Your task to perform on an android device: turn off data saver in the chrome app Image 0: 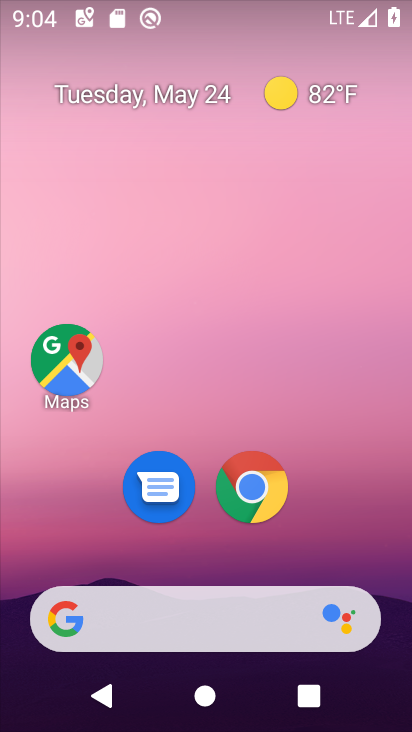
Step 0: drag from (365, 532) to (370, 34)
Your task to perform on an android device: turn off data saver in the chrome app Image 1: 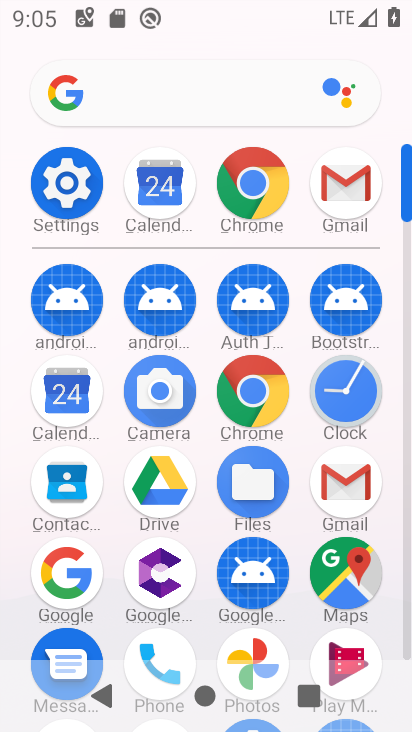
Step 1: click (223, 384)
Your task to perform on an android device: turn off data saver in the chrome app Image 2: 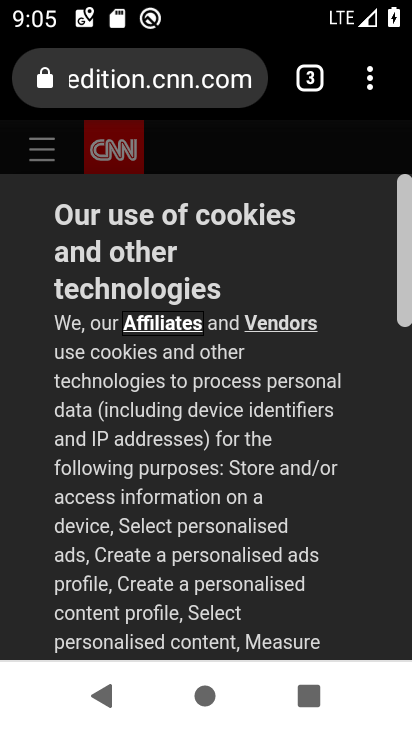
Step 2: click (379, 84)
Your task to perform on an android device: turn off data saver in the chrome app Image 3: 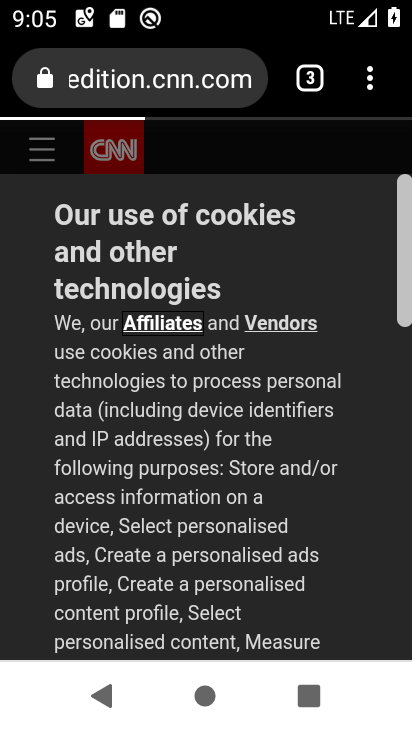
Step 3: drag from (364, 86) to (132, 546)
Your task to perform on an android device: turn off data saver in the chrome app Image 4: 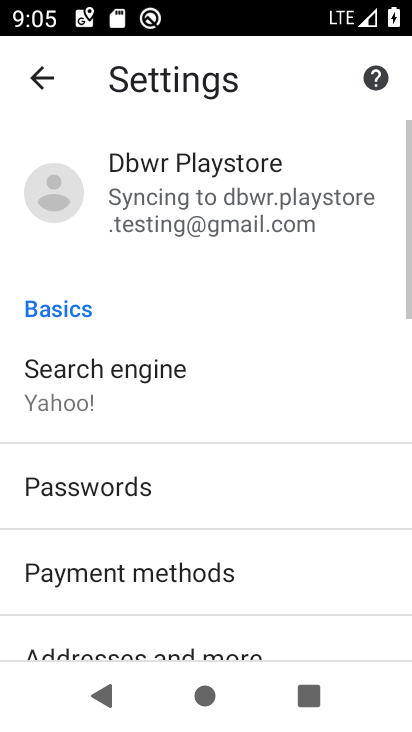
Step 4: drag from (266, 636) to (322, 300)
Your task to perform on an android device: turn off data saver in the chrome app Image 5: 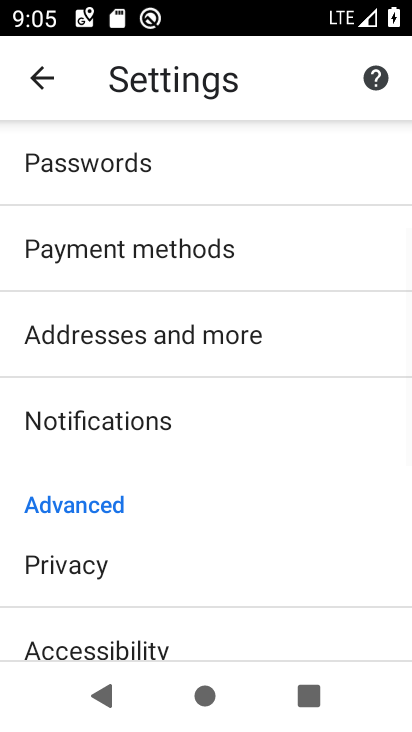
Step 5: drag from (236, 606) to (294, 278)
Your task to perform on an android device: turn off data saver in the chrome app Image 6: 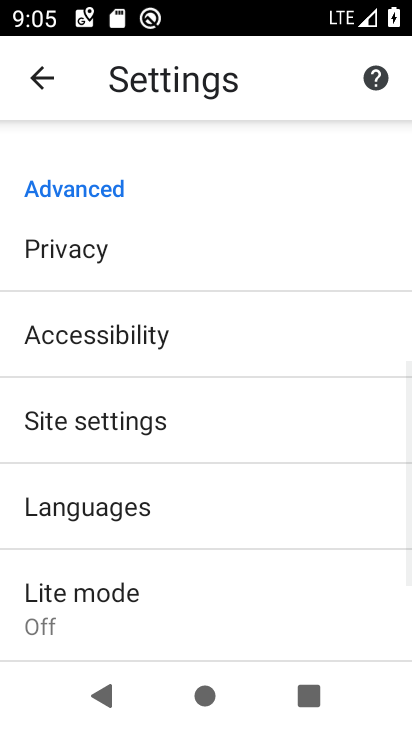
Step 6: drag from (198, 591) to (278, 289)
Your task to perform on an android device: turn off data saver in the chrome app Image 7: 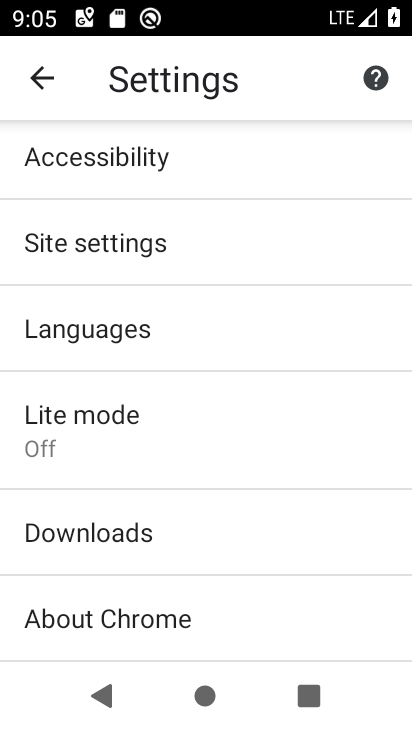
Step 7: drag from (190, 603) to (280, 249)
Your task to perform on an android device: turn off data saver in the chrome app Image 8: 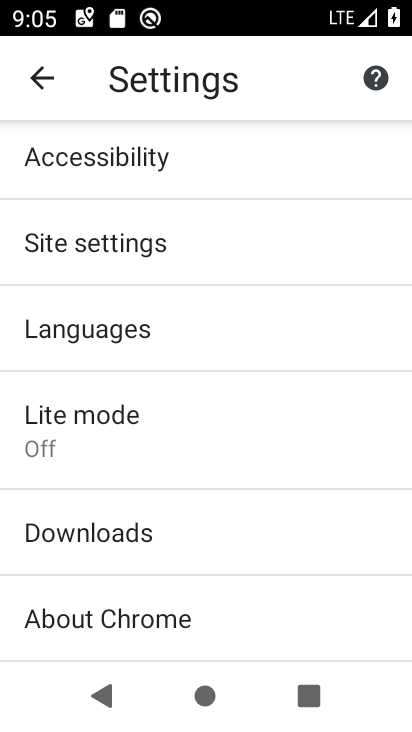
Step 8: click (106, 415)
Your task to perform on an android device: turn off data saver in the chrome app Image 9: 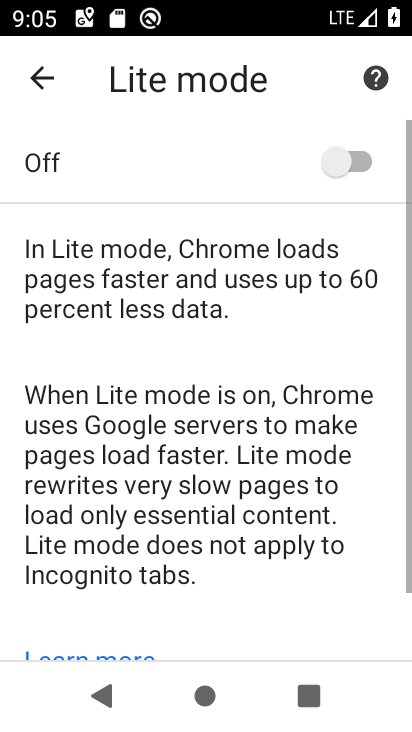
Step 9: task complete